Your task to perform on an android device: Check the news Image 0: 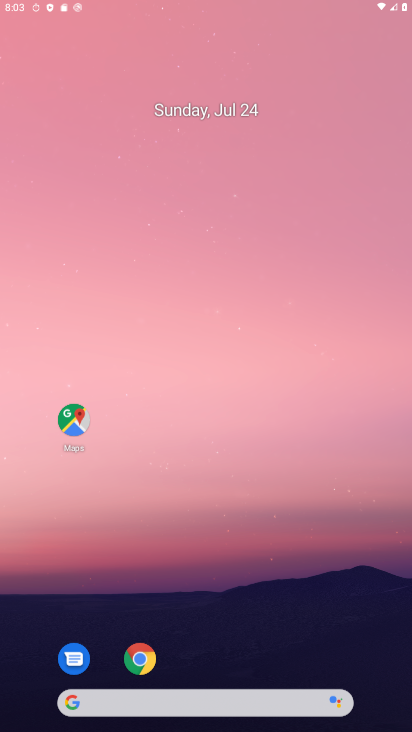
Step 0: click (241, 162)
Your task to perform on an android device: Check the news Image 1: 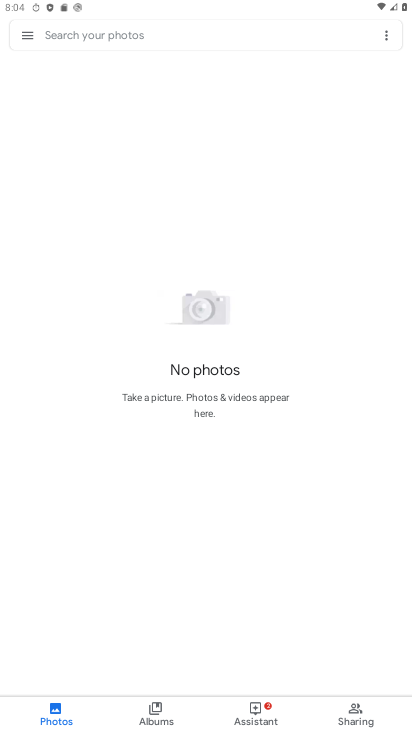
Step 1: press back button
Your task to perform on an android device: Check the news Image 2: 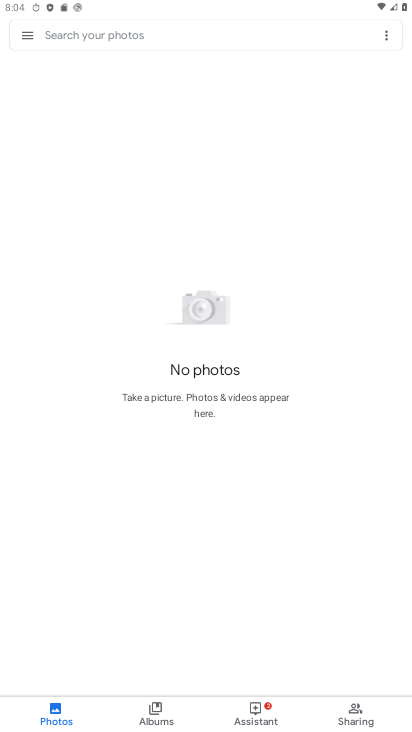
Step 2: press back button
Your task to perform on an android device: Check the news Image 3: 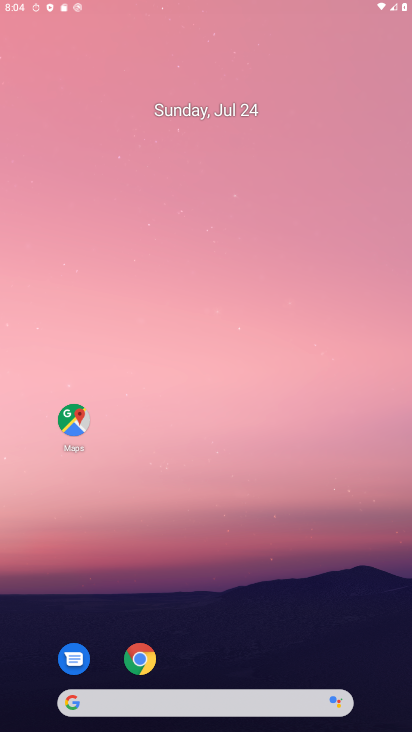
Step 3: press back button
Your task to perform on an android device: Check the news Image 4: 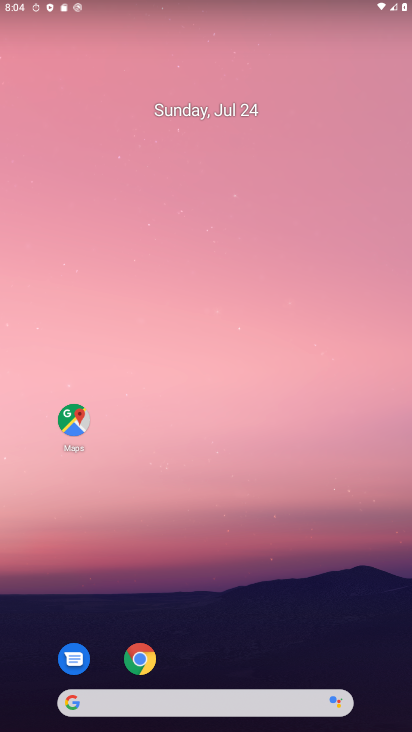
Step 4: drag from (271, 689) to (240, 247)
Your task to perform on an android device: Check the news Image 5: 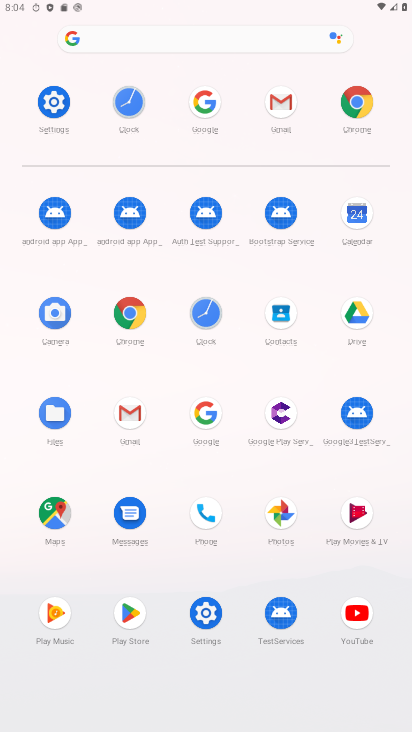
Step 5: click (363, 104)
Your task to perform on an android device: Check the news Image 6: 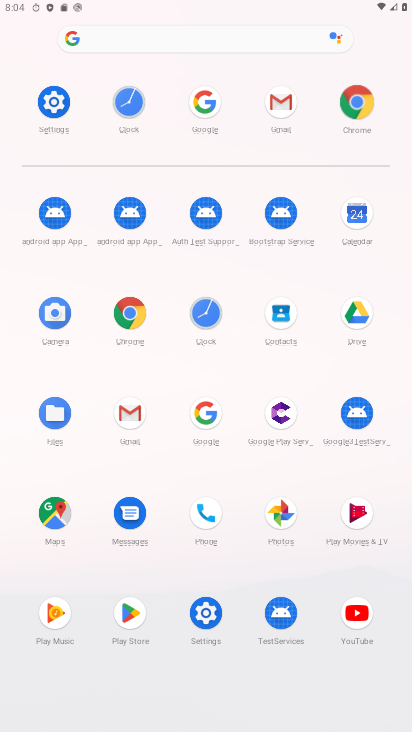
Step 6: click (363, 103)
Your task to perform on an android device: Check the news Image 7: 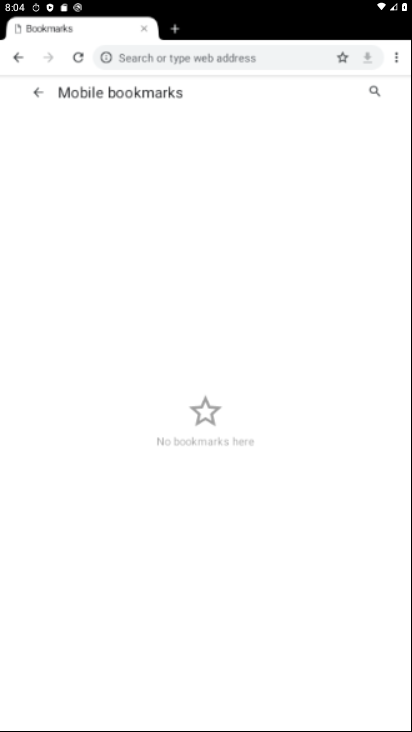
Step 7: click (357, 100)
Your task to perform on an android device: Check the news Image 8: 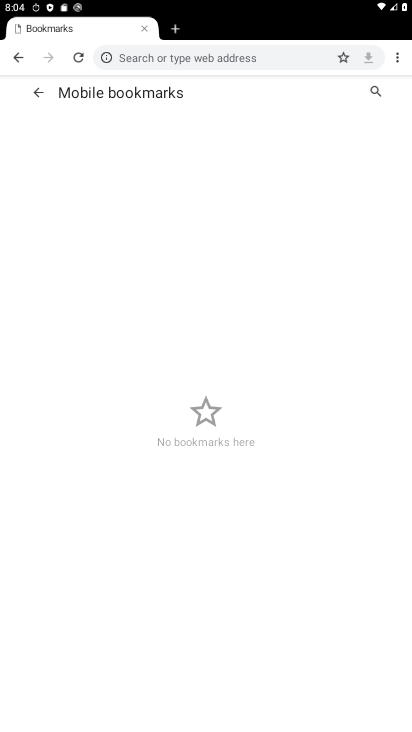
Step 8: click (31, 95)
Your task to perform on an android device: Check the news Image 9: 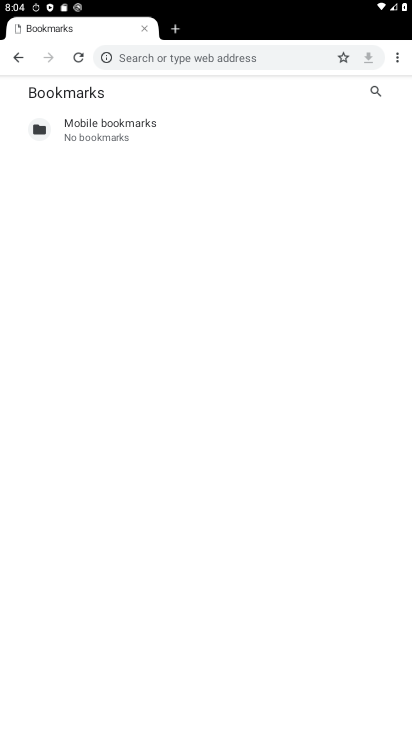
Step 9: click (41, 89)
Your task to perform on an android device: Check the news Image 10: 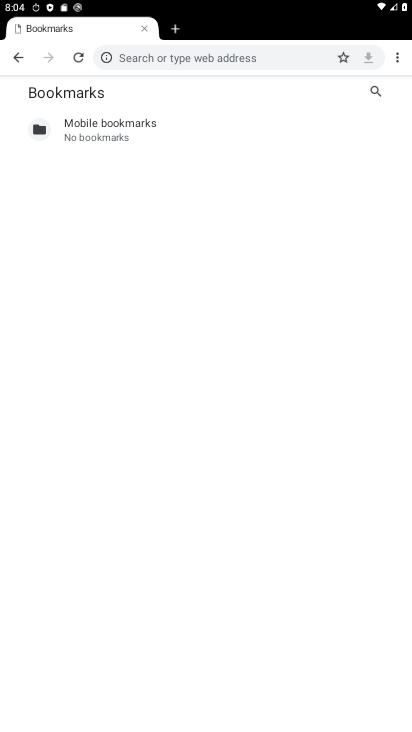
Step 10: click (13, 56)
Your task to perform on an android device: Check the news Image 11: 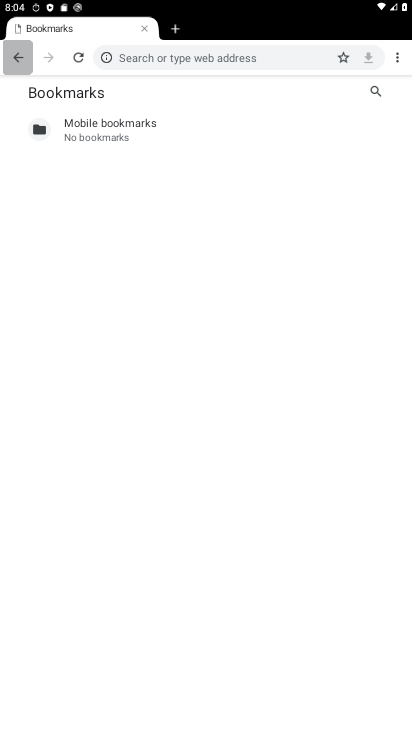
Step 11: click (14, 56)
Your task to perform on an android device: Check the news Image 12: 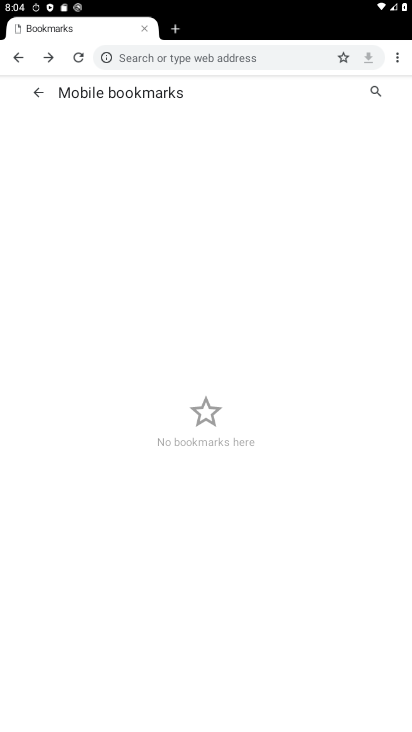
Step 12: click (10, 55)
Your task to perform on an android device: Check the news Image 13: 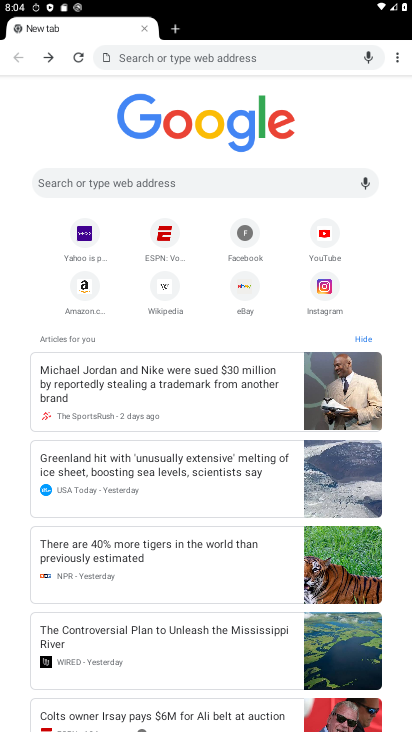
Step 13: task complete